Your task to perform on an android device: turn on airplane mode Image 0: 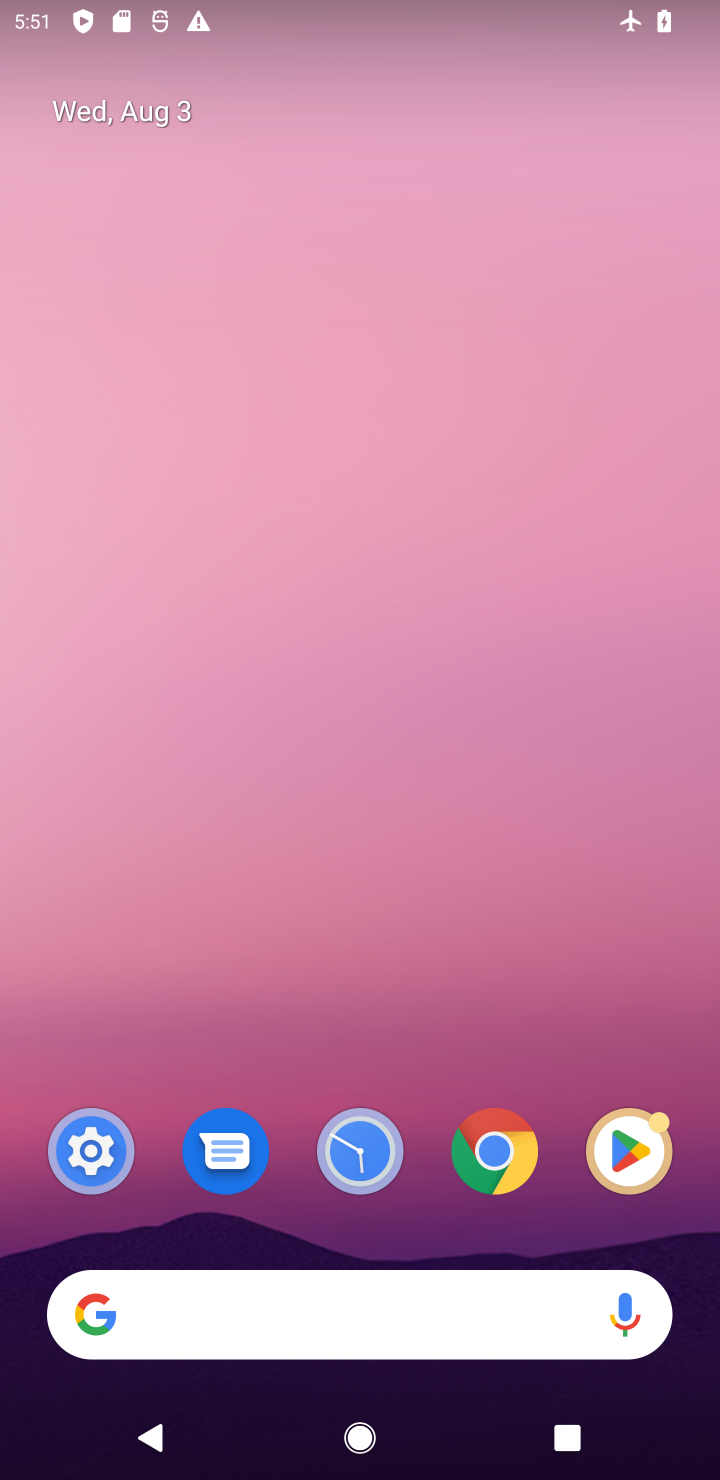
Step 0: drag from (550, 1047) to (483, 46)
Your task to perform on an android device: turn on airplane mode Image 1: 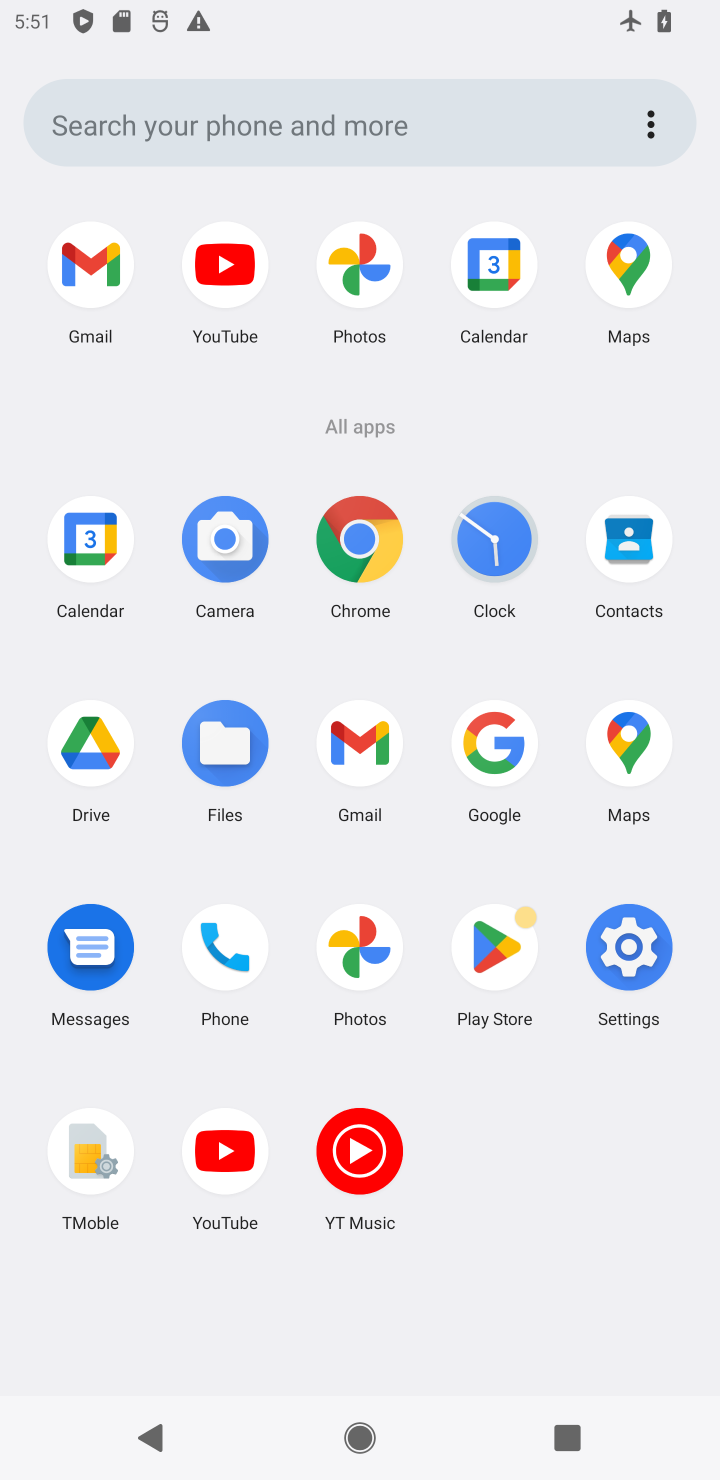
Step 1: click (651, 943)
Your task to perform on an android device: turn on airplane mode Image 2: 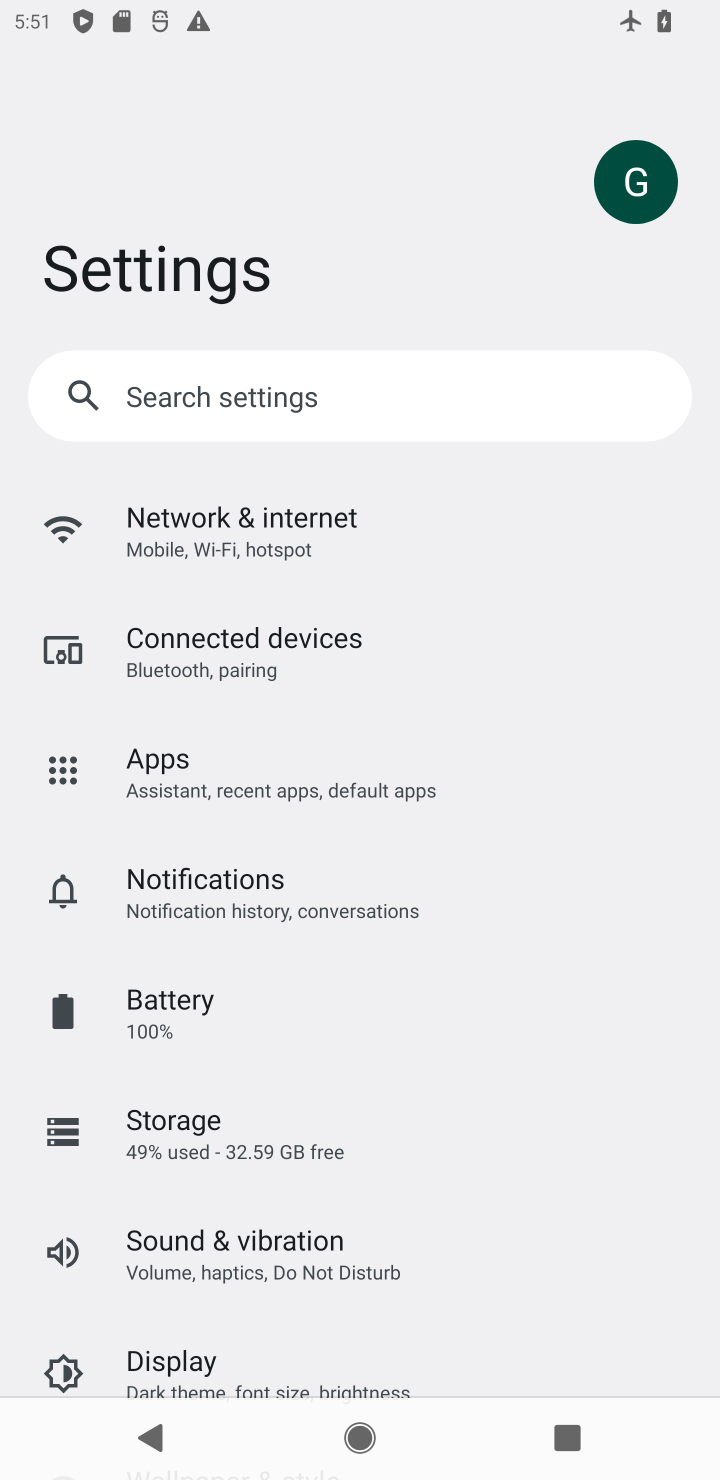
Step 2: click (480, 532)
Your task to perform on an android device: turn on airplane mode Image 3: 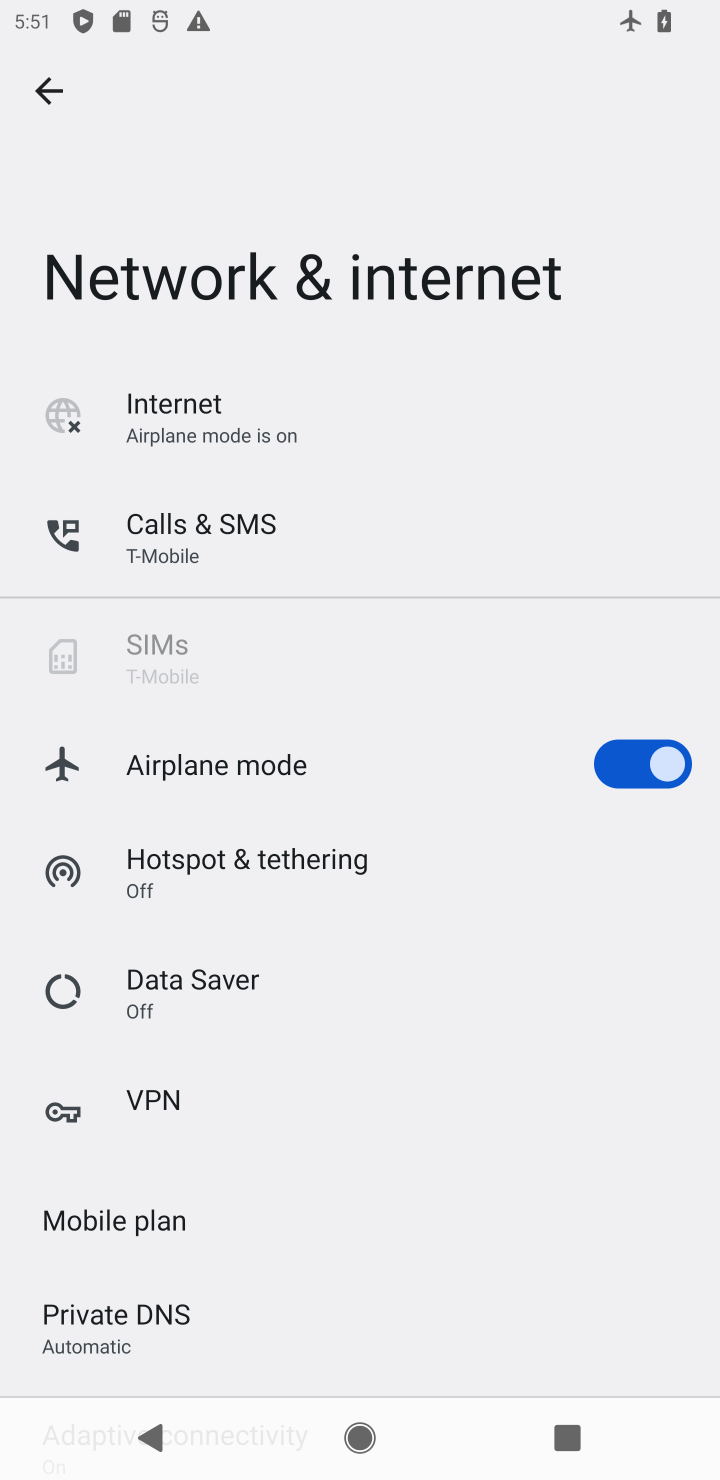
Step 3: task complete